Your task to perform on an android device: turn pop-ups off in chrome Image 0: 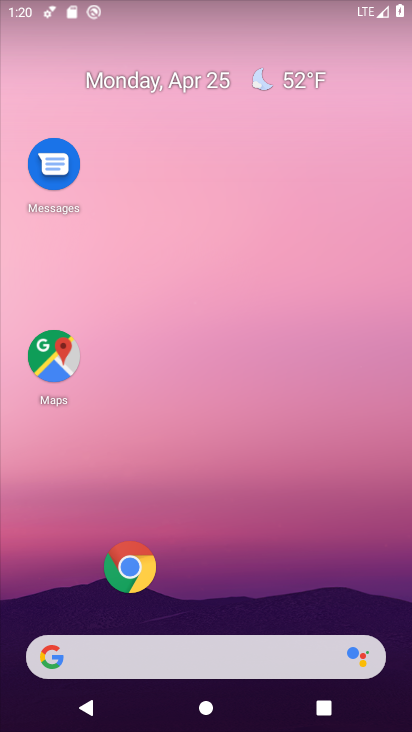
Step 0: drag from (257, 583) to (245, 88)
Your task to perform on an android device: turn pop-ups off in chrome Image 1: 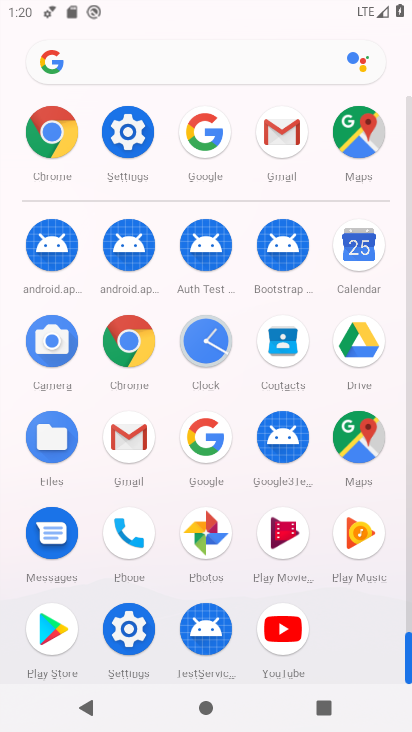
Step 1: click (56, 160)
Your task to perform on an android device: turn pop-ups off in chrome Image 2: 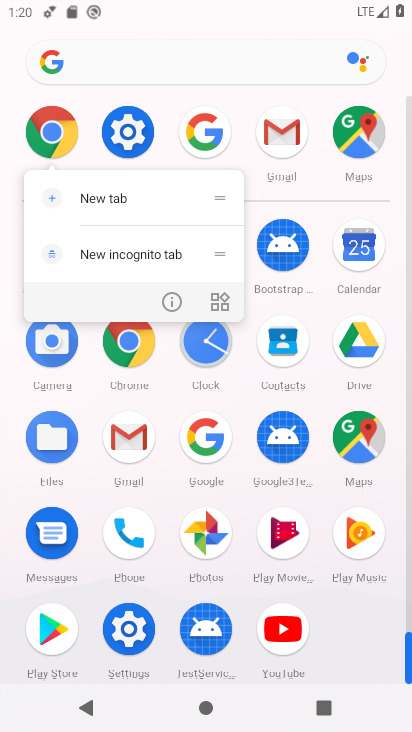
Step 2: click (46, 159)
Your task to perform on an android device: turn pop-ups off in chrome Image 3: 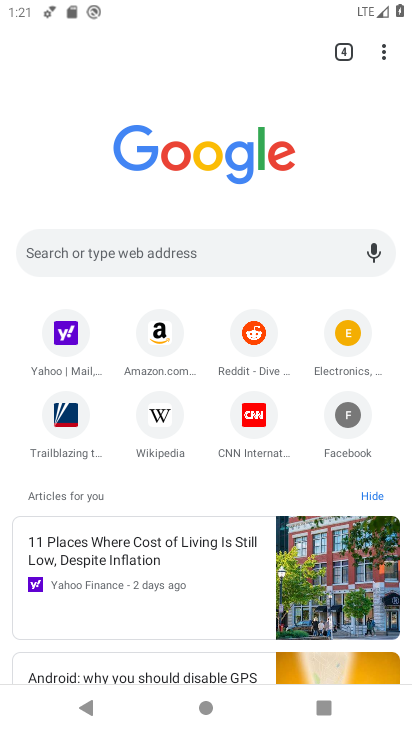
Step 3: click (377, 62)
Your task to perform on an android device: turn pop-ups off in chrome Image 4: 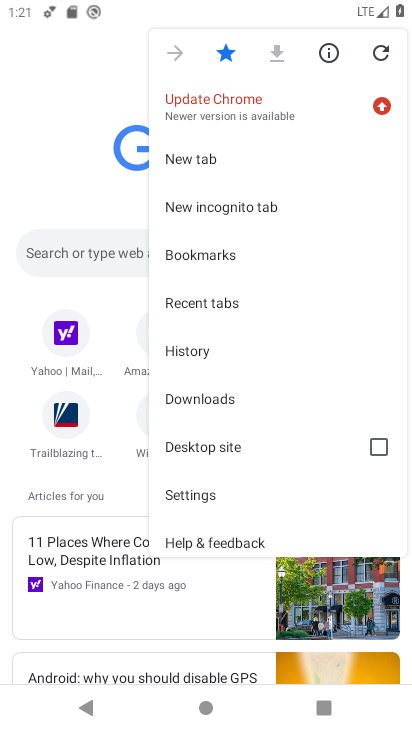
Step 4: click (228, 496)
Your task to perform on an android device: turn pop-ups off in chrome Image 5: 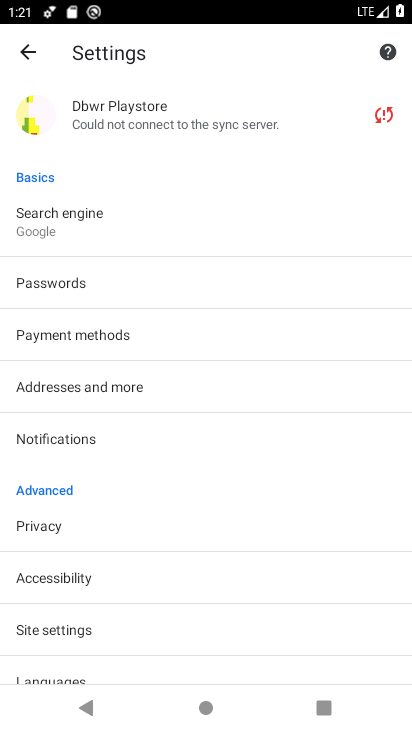
Step 5: click (25, 625)
Your task to perform on an android device: turn pop-ups off in chrome Image 6: 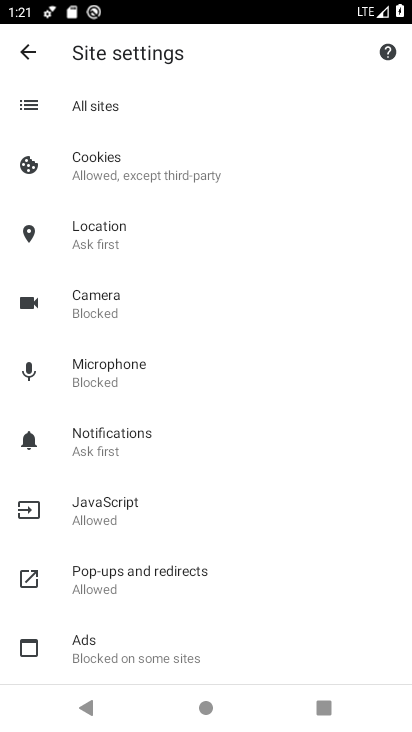
Step 6: click (168, 573)
Your task to perform on an android device: turn pop-ups off in chrome Image 7: 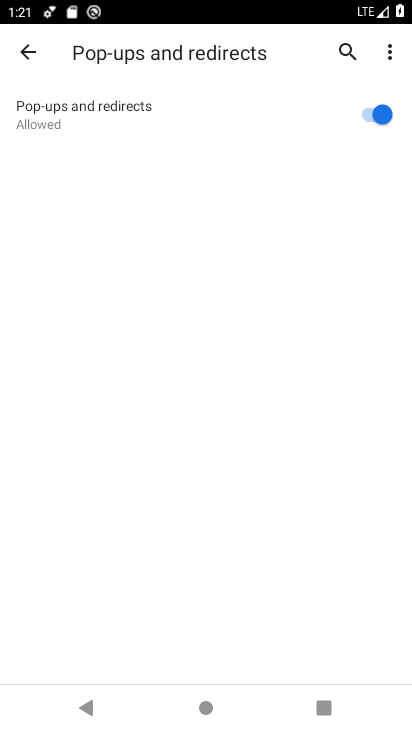
Step 7: click (366, 121)
Your task to perform on an android device: turn pop-ups off in chrome Image 8: 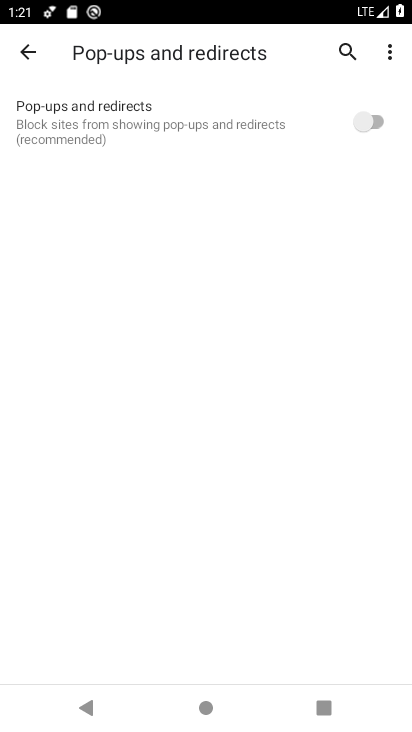
Step 8: task complete